Your task to perform on an android device: Add usb-c to the cart on target Image 0: 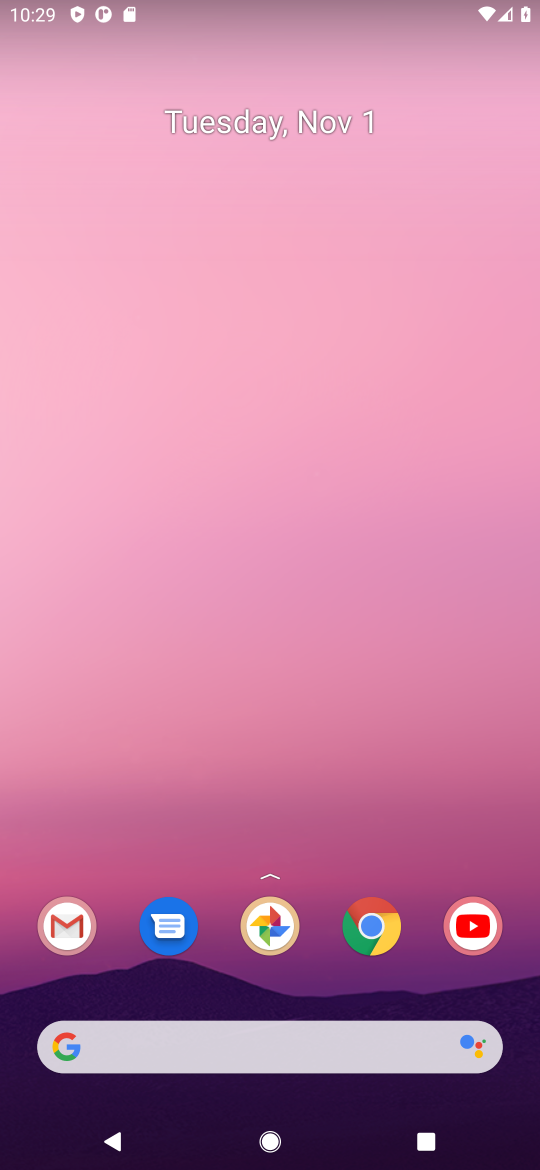
Step 0: click (380, 930)
Your task to perform on an android device: Add usb-c to the cart on target Image 1: 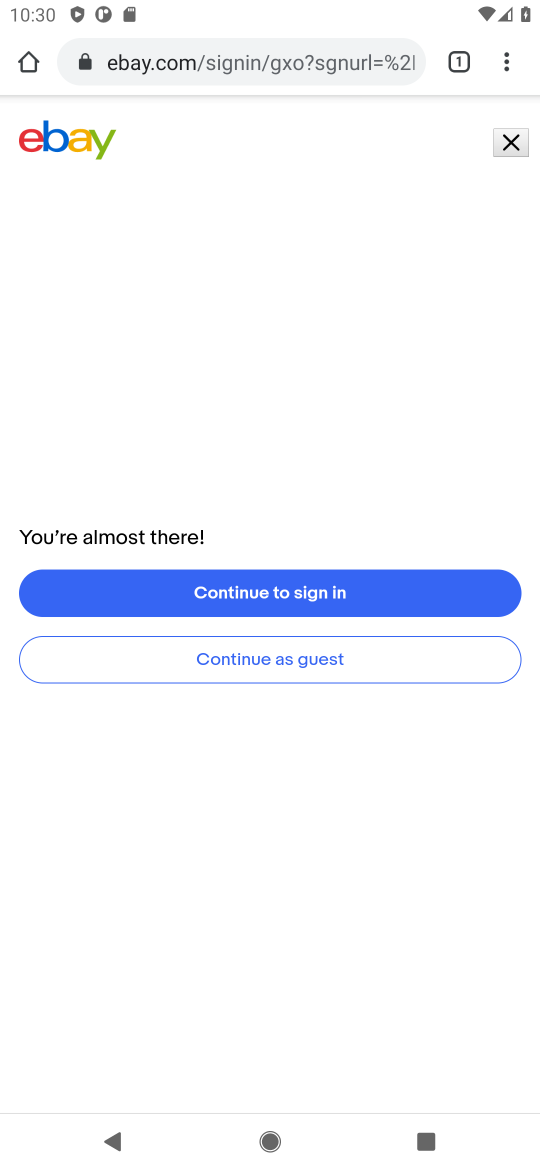
Step 1: click (205, 669)
Your task to perform on an android device: Add usb-c to the cart on target Image 2: 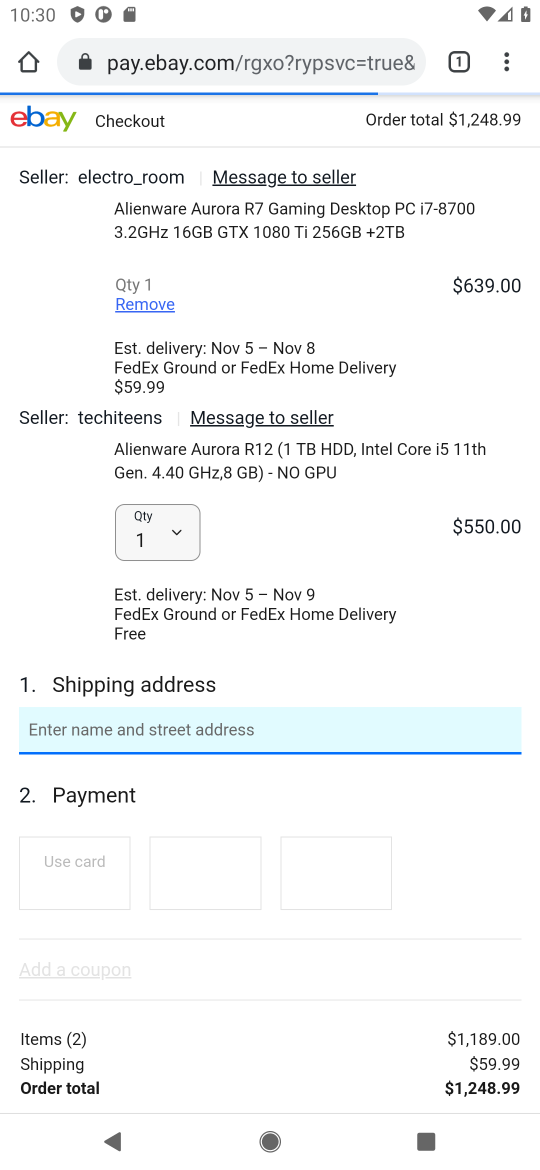
Step 2: click (231, 656)
Your task to perform on an android device: Add usb-c to the cart on target Image 3: 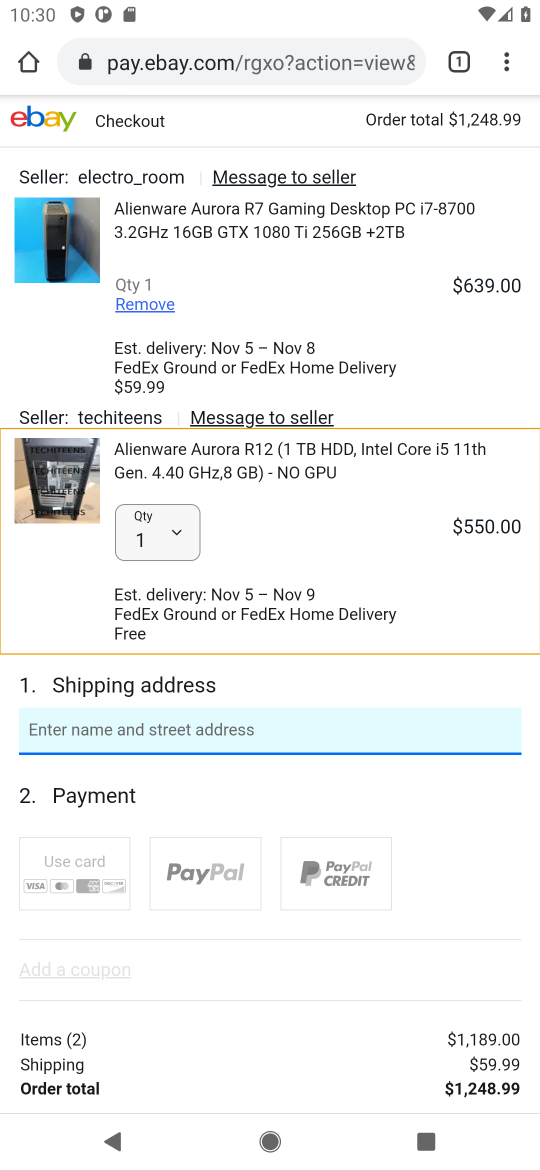
Step 3: drag from (305, 691) to (325, 999)
Your task to perform on an android device: Add usb-c to the cart on target Image 4: 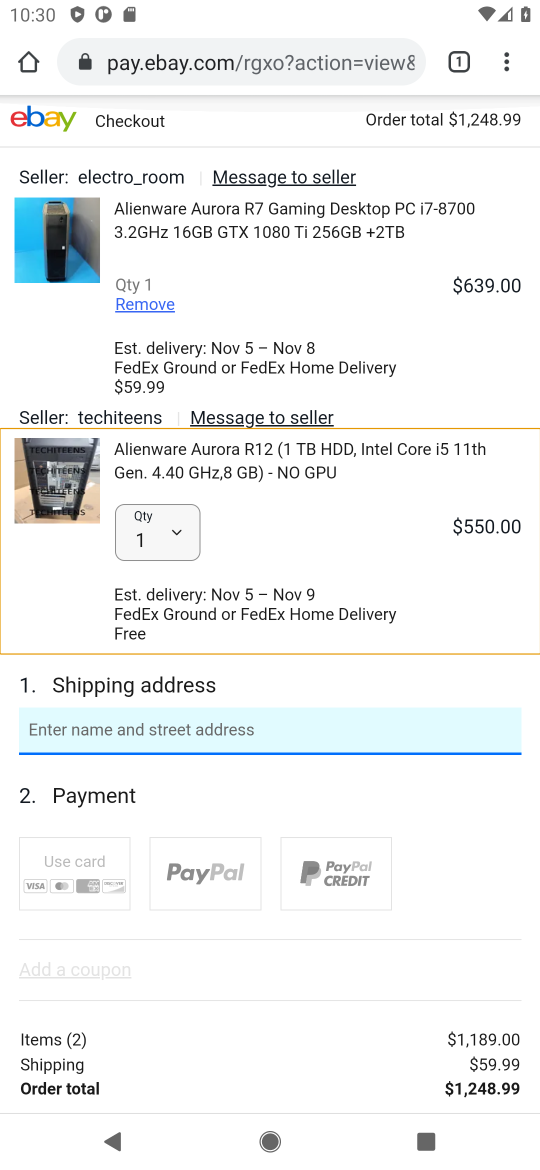
Step 4: drag from (274, 311) to (141, 962)
Your task to perform on an android device: Add usb-c to the cart on target Image 5: 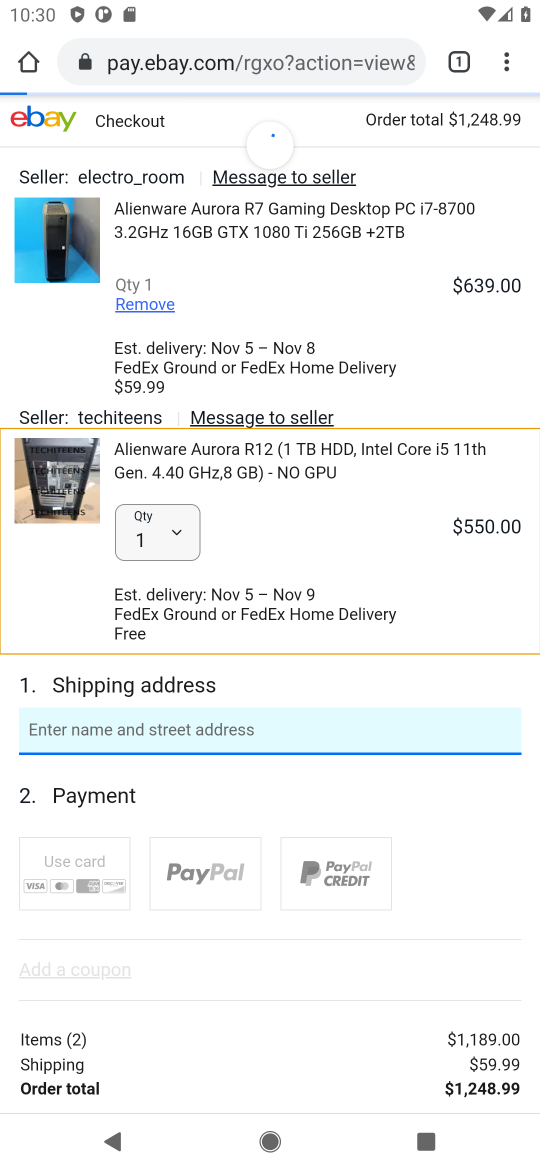
Step 5: drag from (394, 215) to (275, 693)
Your task to perform on an android device: Add usb-c to the cart on target Image 6: 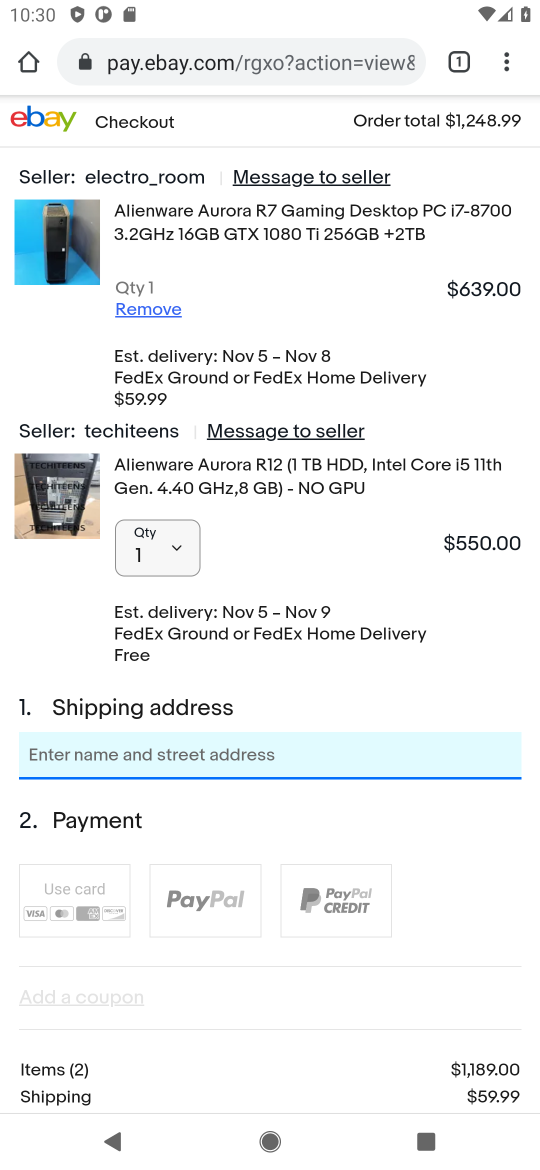
Step 6: drag from (216, 254) to (230, 798)
Your task to perform on an android device: Add usb-c to the cart on target Image 7: 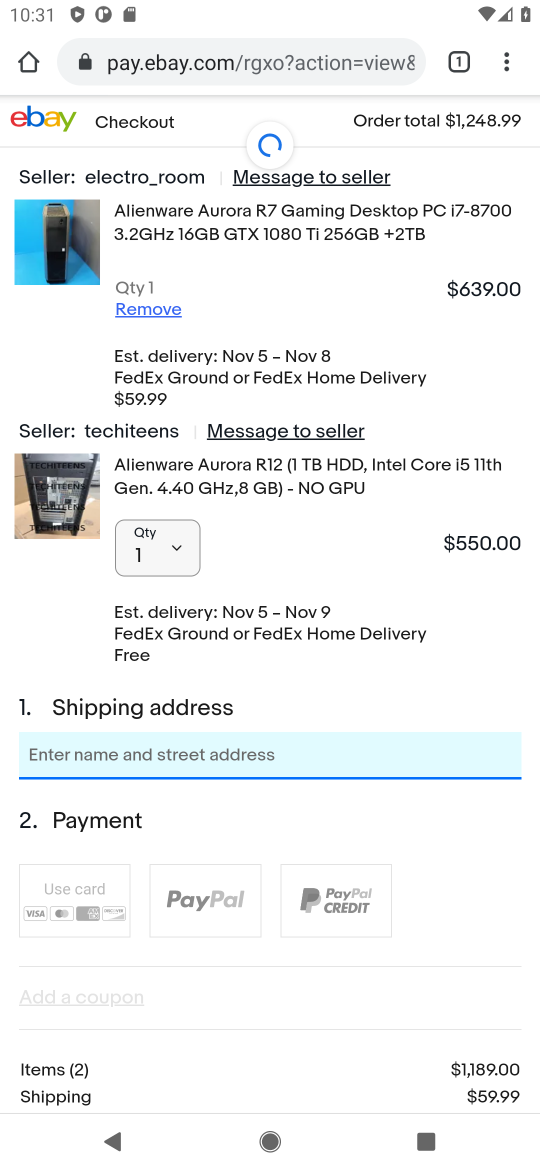
Step 7: press back button
Your task to perform on an android device: Add usb-c to the cart on target Image 8: 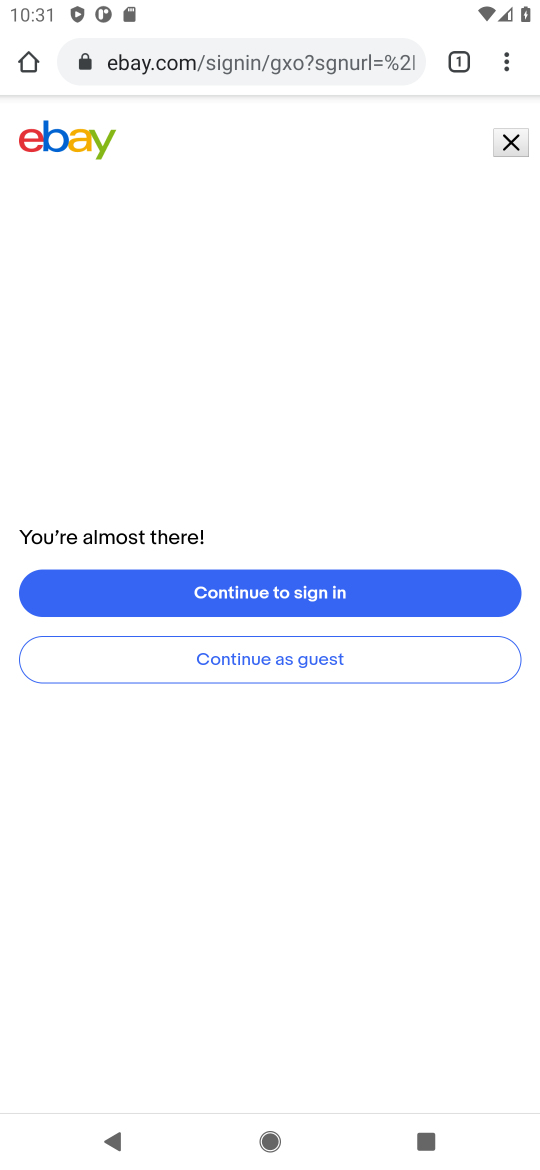
Step 8: click (277, 661)
Your task to perform on an android device: Add usb-c to the cart on target Image 9: 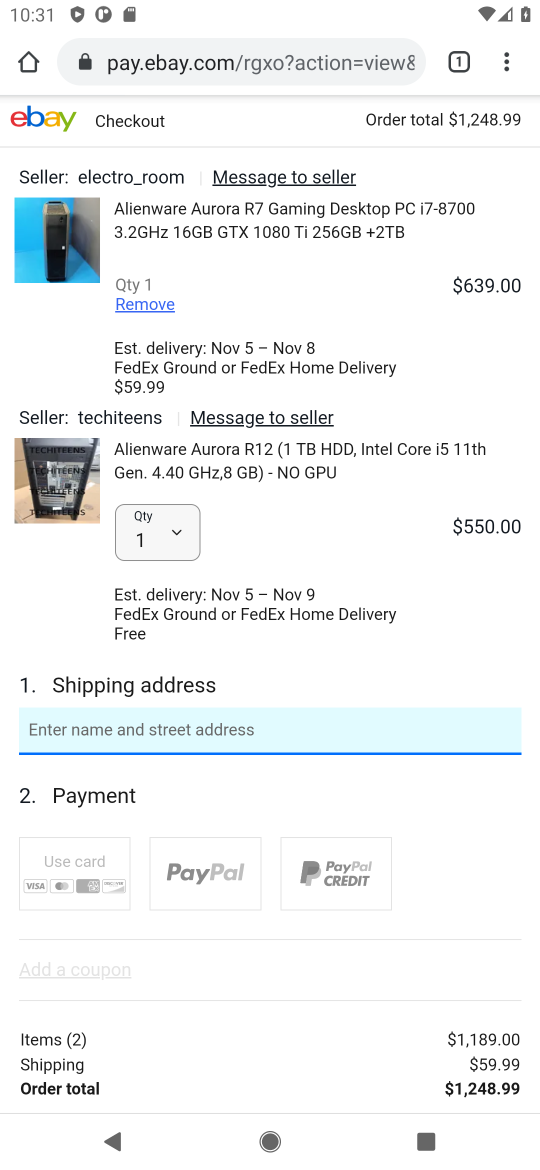
Step 9: drag from (209, 569) to (261, 322)
Your task to perform on an android device: Add usb-c to the cart on target Image 10: 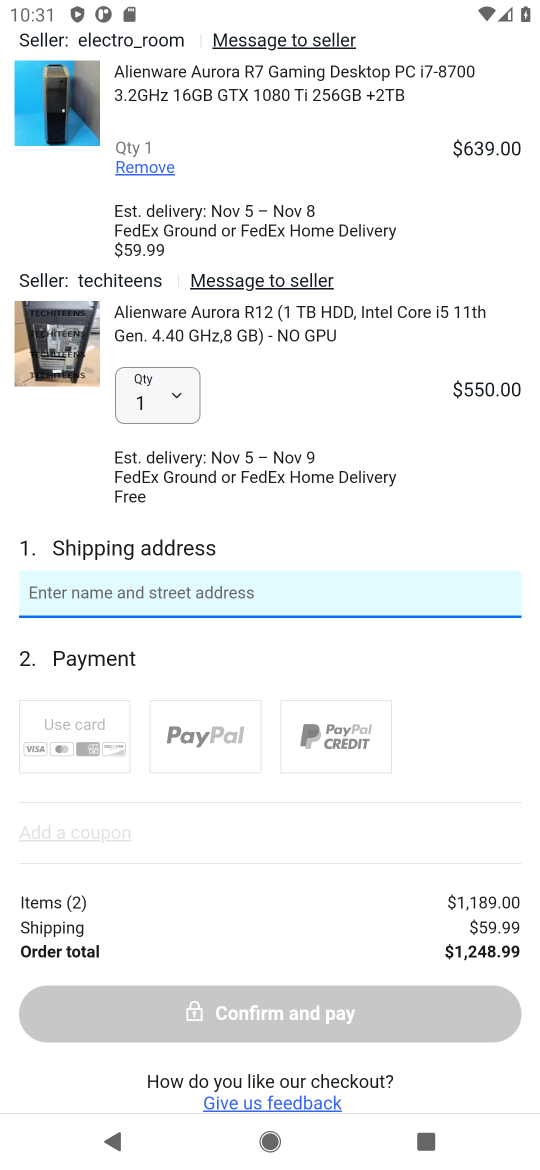
Step 10: drag from (276, 789) to (274, 411)
Your task to perform on an android device: Add usb-c to the cart on target Image 11: 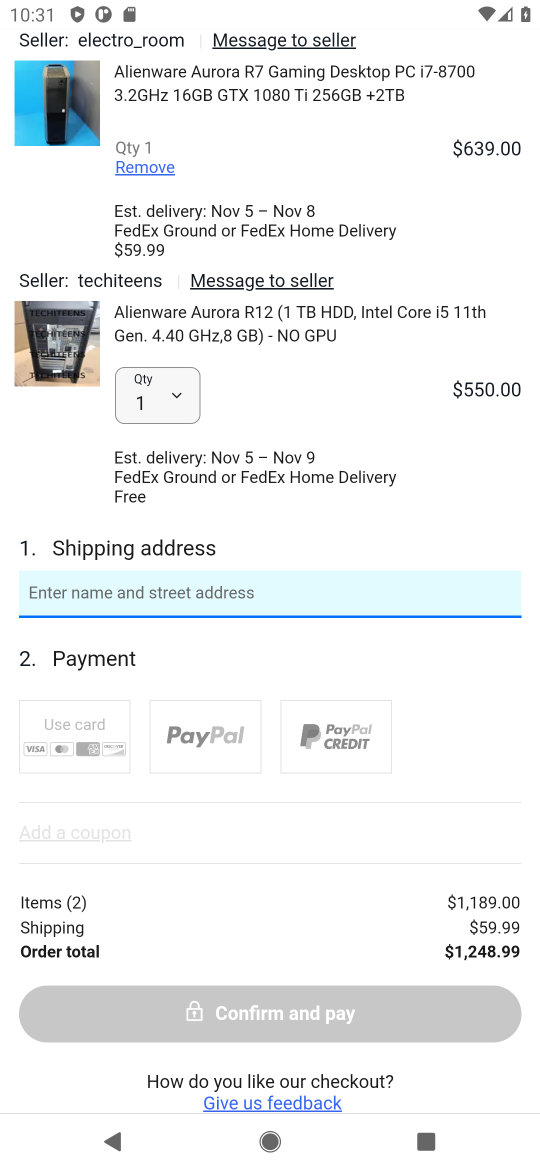
Step 11: drag from (289, 295) to (226, 946)
Your task to perform on an android device: Add usb-c to the cart on target Image 12: 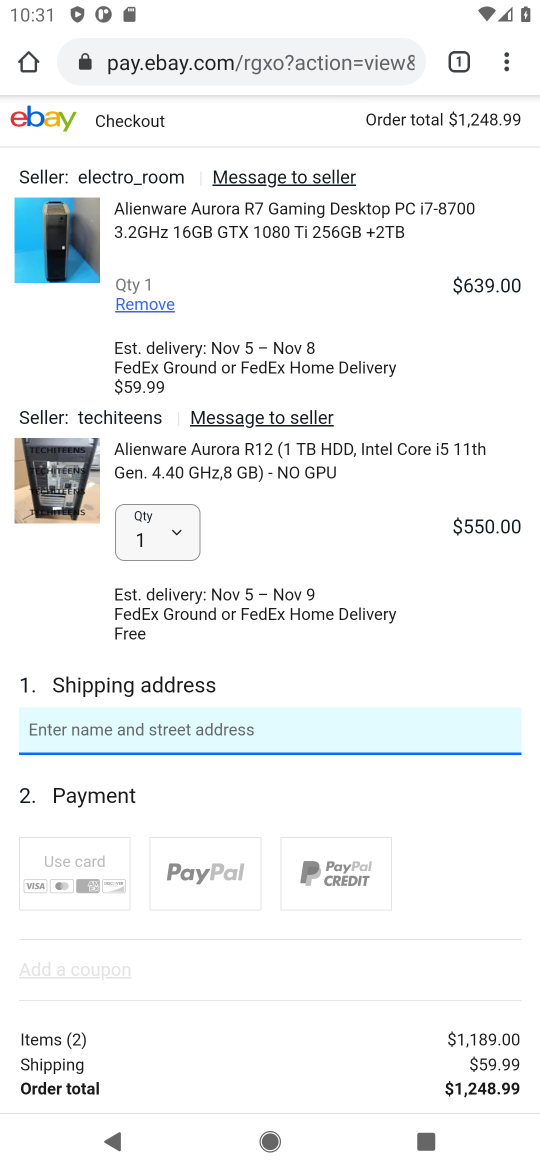
Step 12: drag from (334, 583) to (100, 905)
Your task to perform on an android device: Add usb-c to the cart on target Image 13: 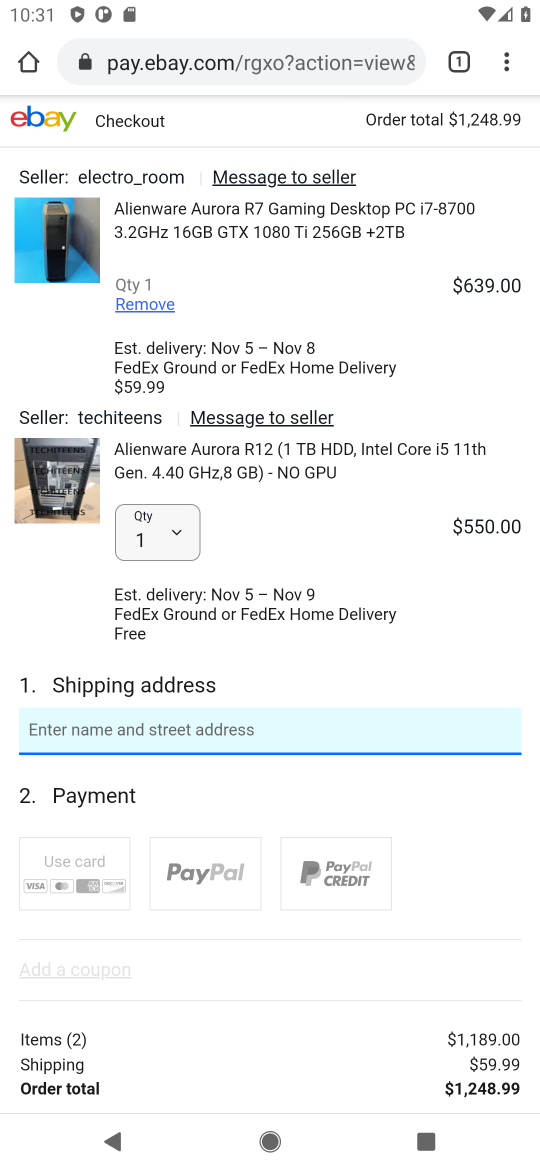
Step 13: click (114, 125)
Your task to perform on an android device: Add usb-c to the cart on target Image 14: 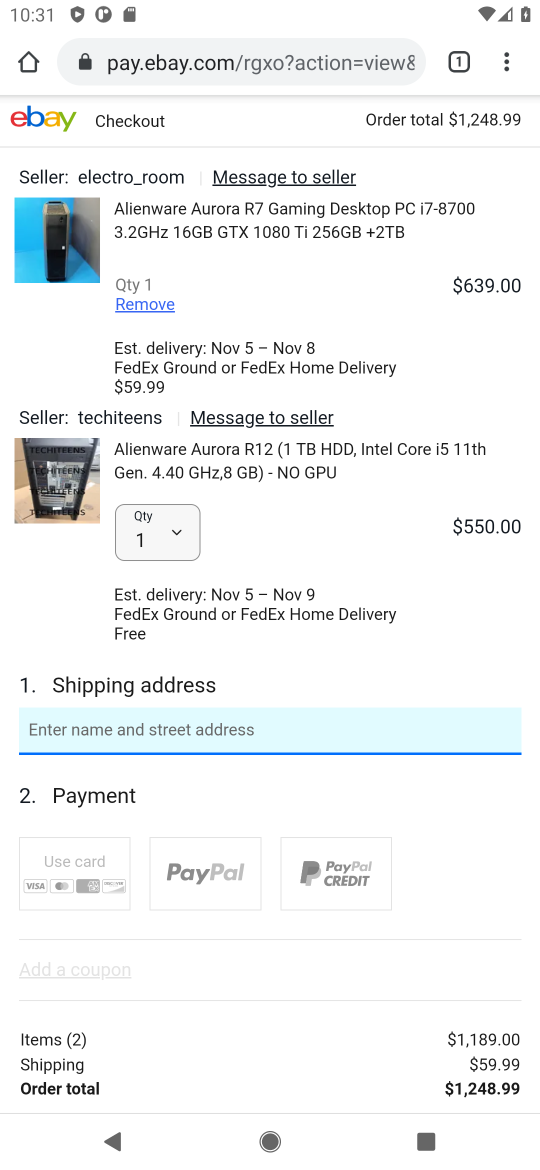
Step 14: click (117, 117)
Your task to perform on an android device: Add usb-c to the cart on target Image 15: 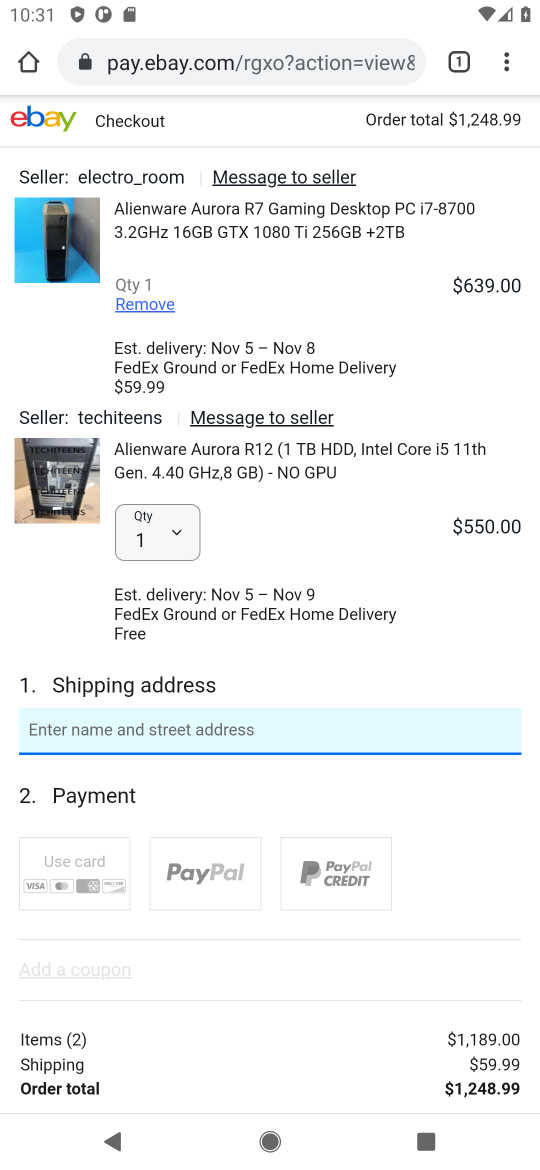
Step 15: task complete